Your task to perform on an android device: Google the capital of Uruguay Image 0: 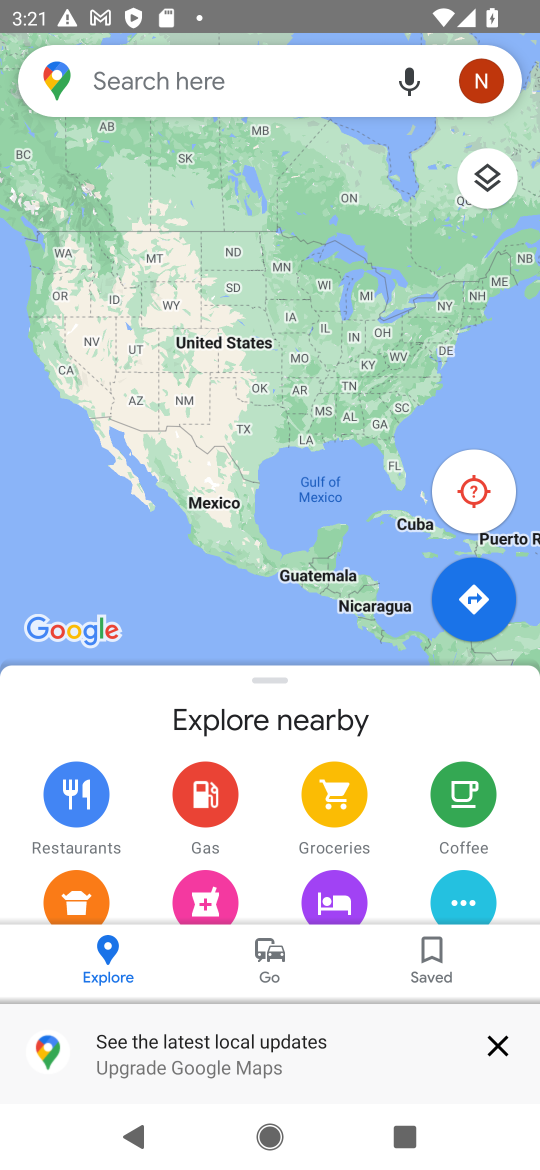
Step 0: press home button
Your task to perform on an android device: Google the capital of Uruguay Image 1: 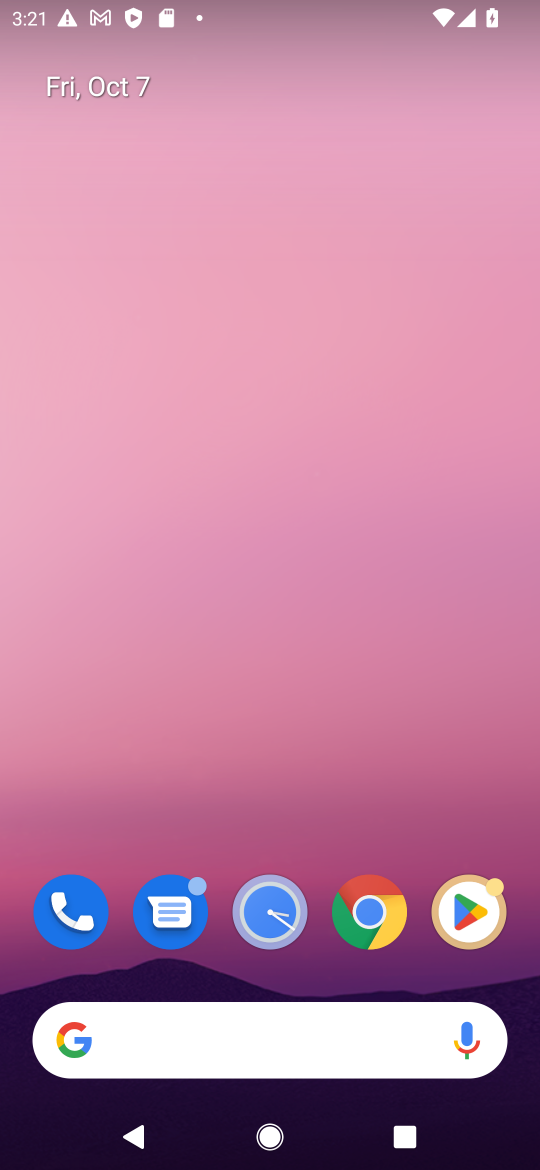
Step 1: drag from (289, 982) to (205, 138)
Your task to perform on an android device: Google the capital of Uruguay Image 2: 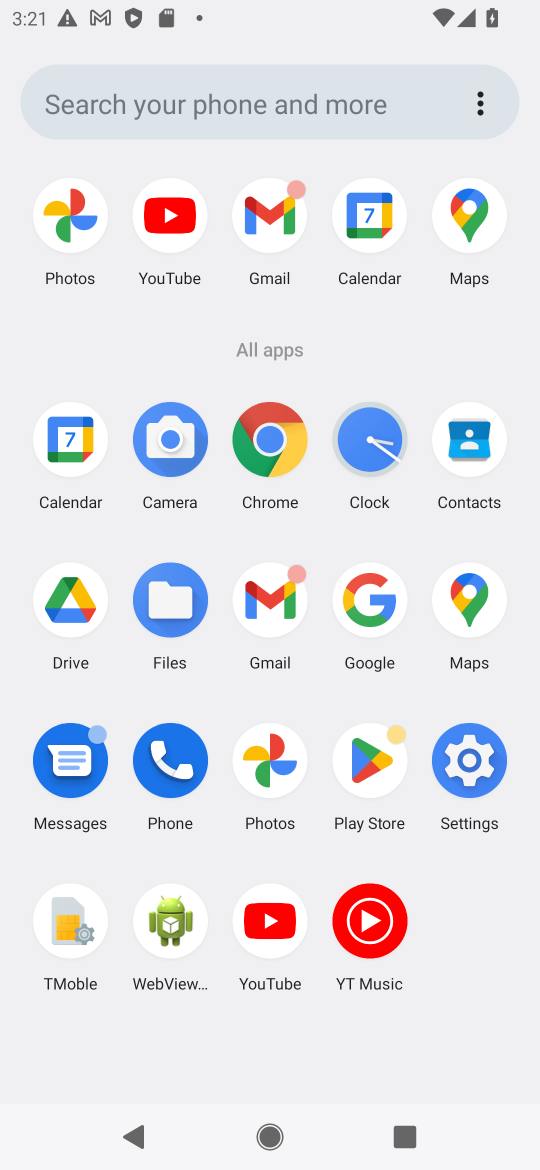
Step 2: click (369, 600)
Your task to perform on an android device: Google the capital of Uruguay Image 3: 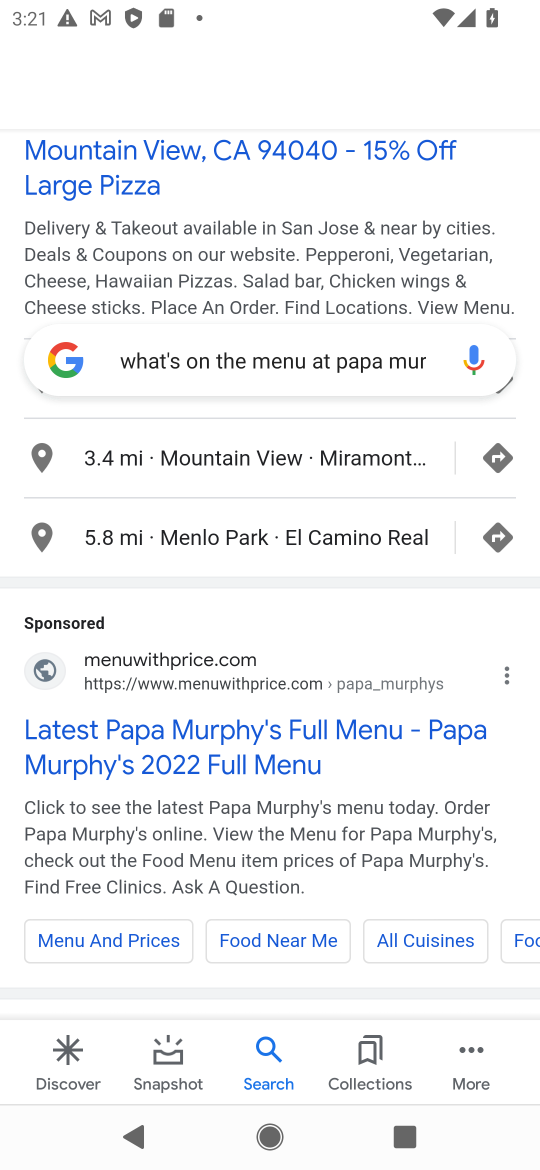
Step 3: drag from (269, 173) to (252, 921)
Your task to perform on an android device: Google the capital of Uruguay Image 4: 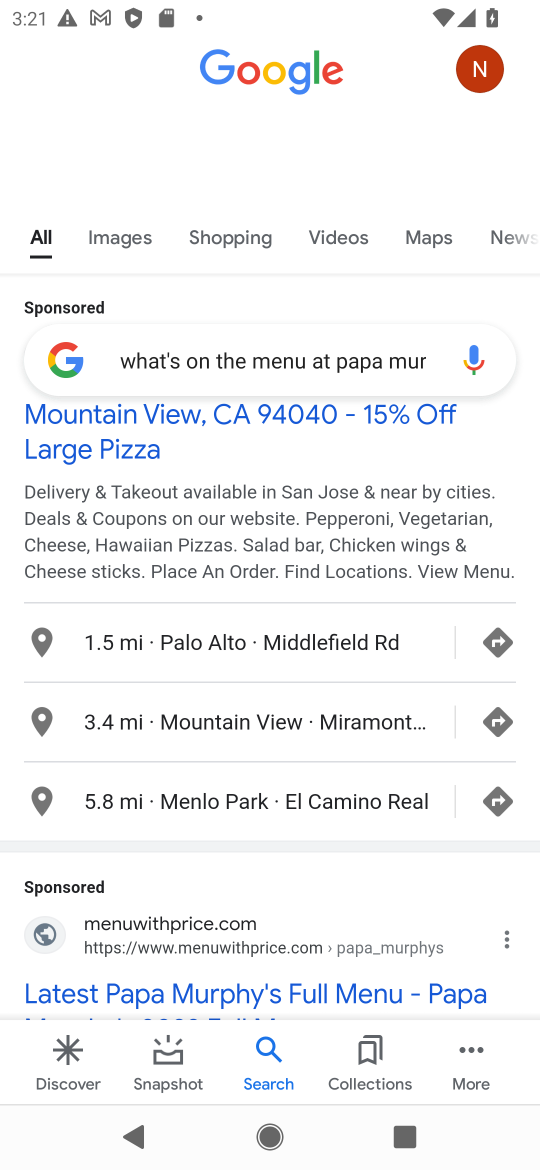
Step 4: click (245, 349)
Your task to perform on an android device: Google the capital of Uruguay Image 5: 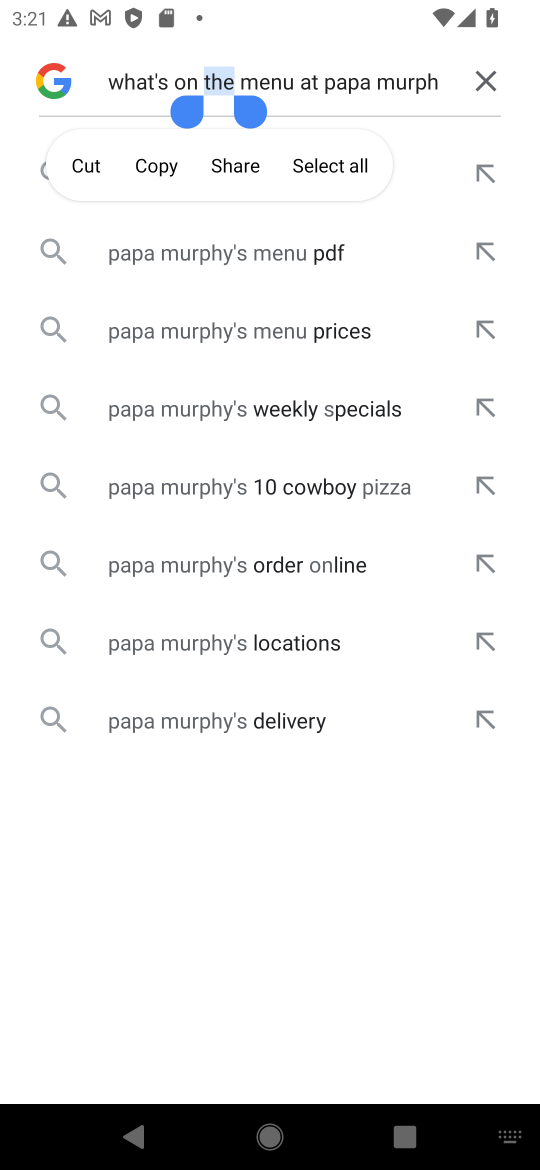
Step 5: click (475, 85)
Your task to perform on an android device: Google the capital of Uruguay Image 6: 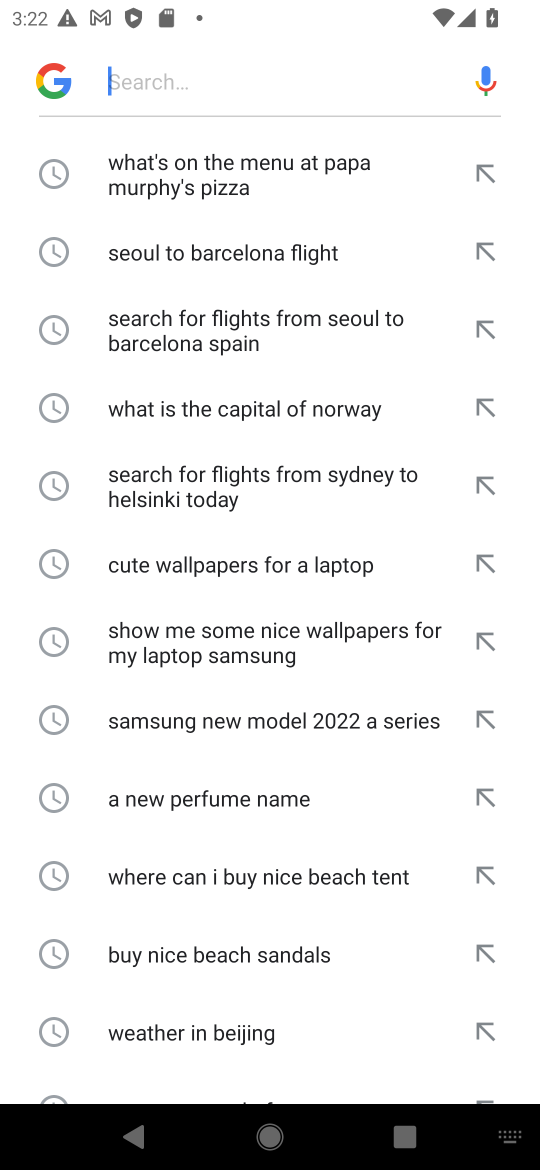
Step 6: click (251, 77)
Your task to perform on an android device: Google the capital of Uruguay Image 7: 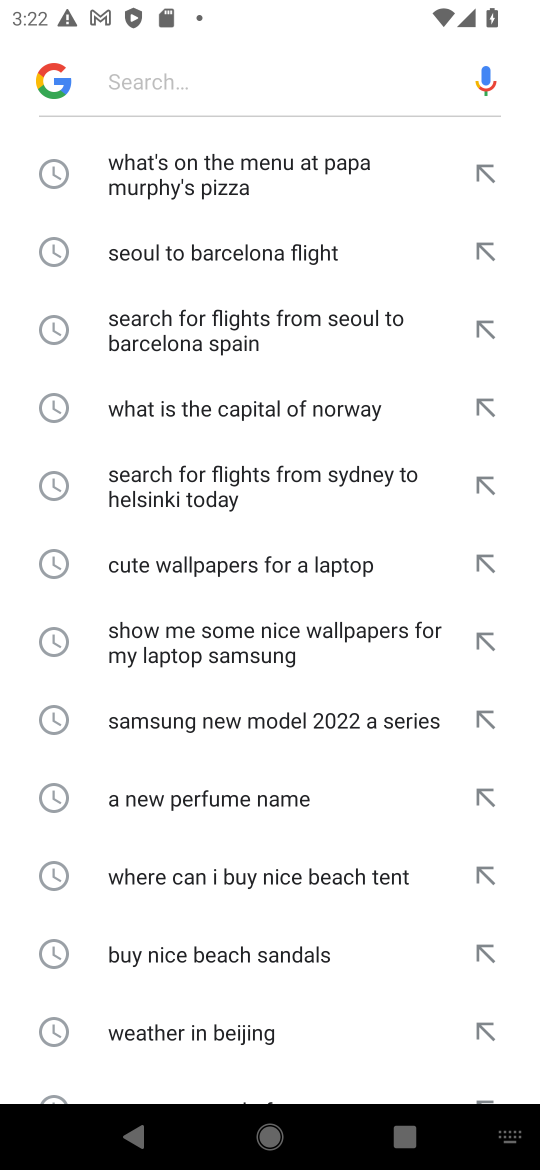
Step 7: type "Google the capital of Uruguay "
Your task to perform on an android device: Google the capital of Uruguay Image 8: 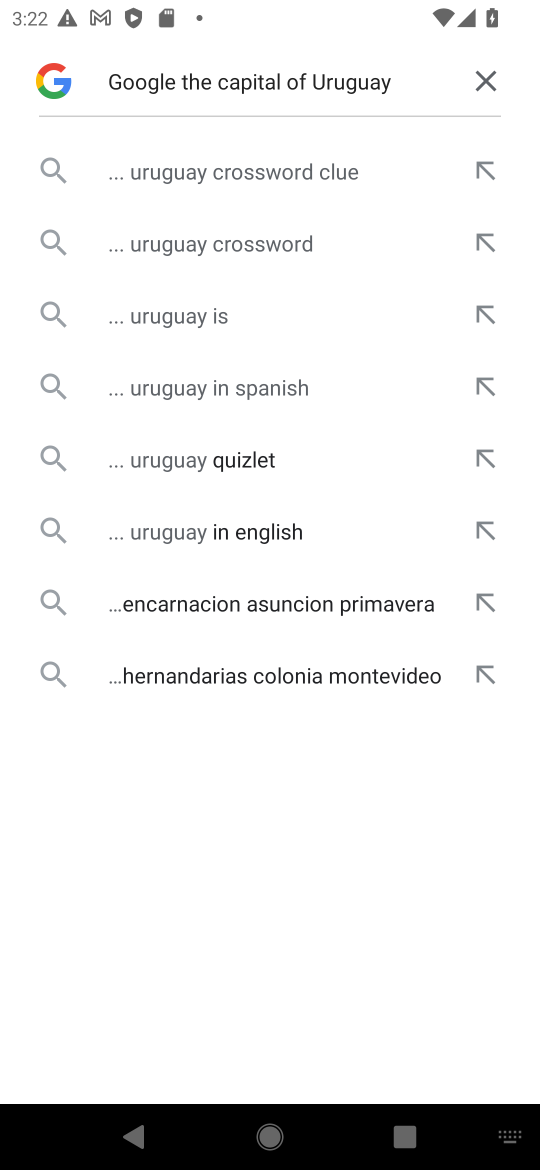
Step 8: click (206, 396)
Your task to perform on an android device: Google the capital of Uruguay Image 9: 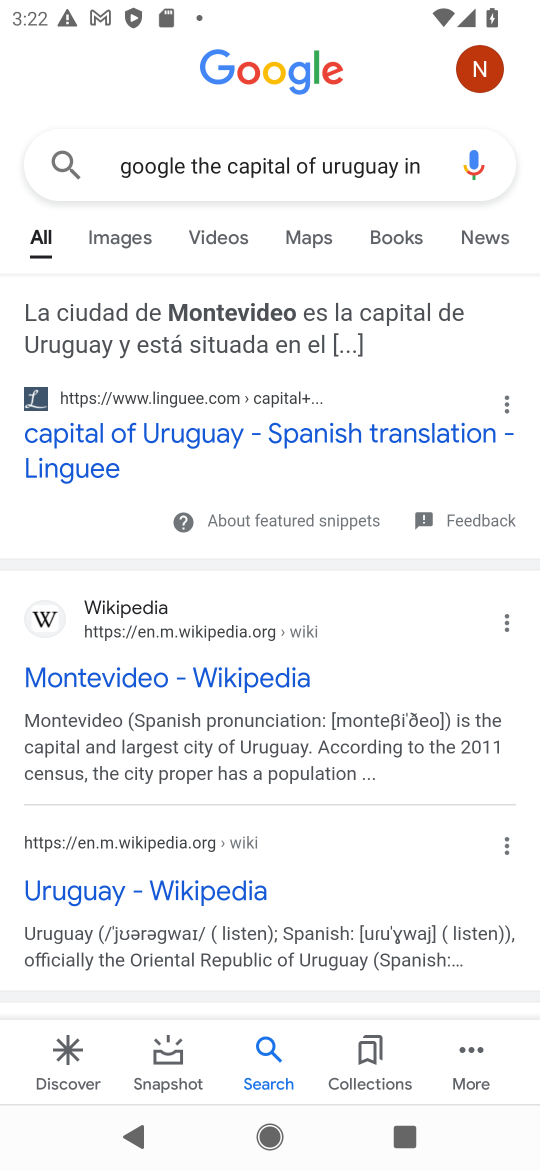
Step 9: click (311, 155)
Your task to perform on an android device: Google the capital of Uruguay Image 10: 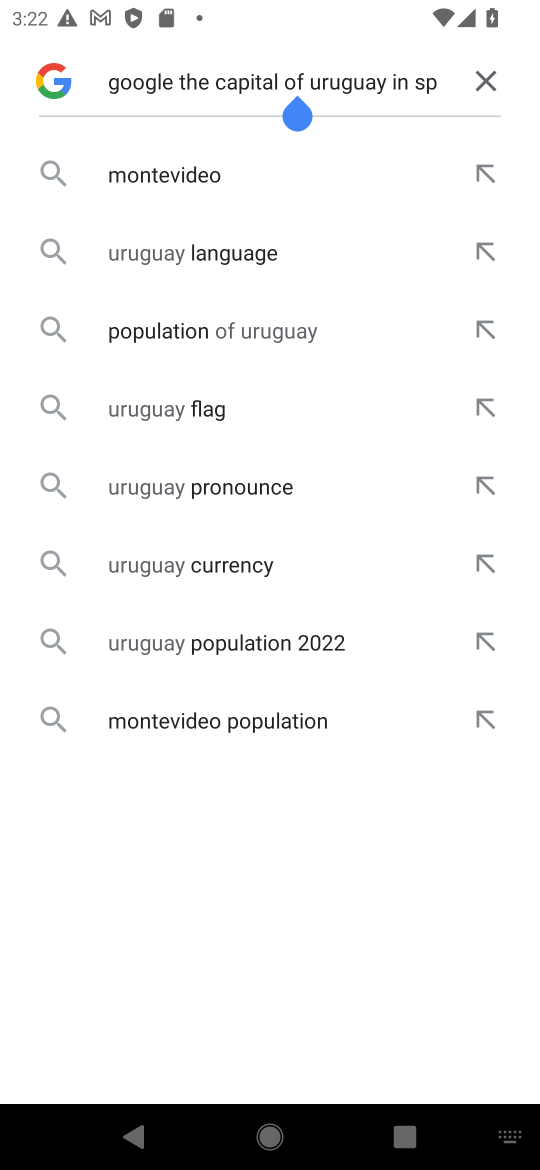
Step 10: click (465, 78)
Your task to perform on an android device: Google the capital of Uruguay Image 11: 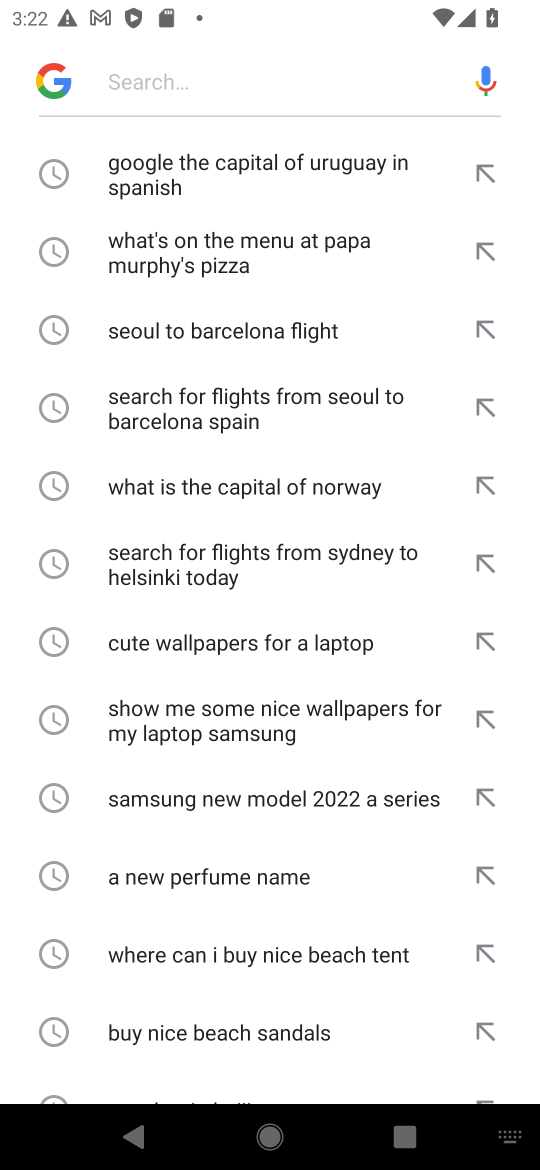
Step 11: click (217, 72)
Your task to perform on an android device: Google the capital of Uruguay Image 12: 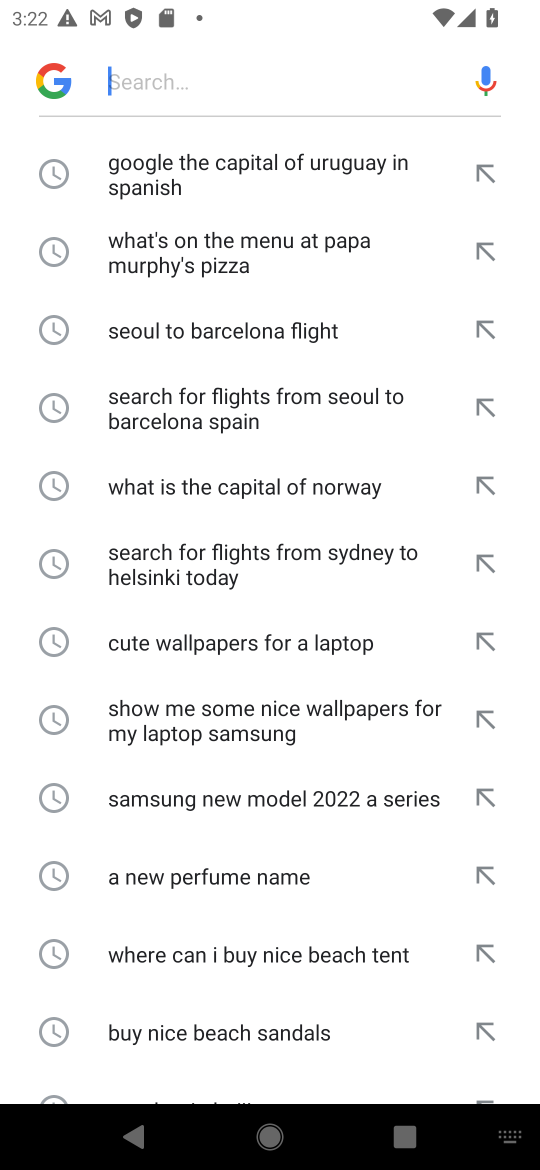
Step 12: type " the capital of Uruguay "
Your task to perform on an android device: Google the capital of Uruguay Image 13: 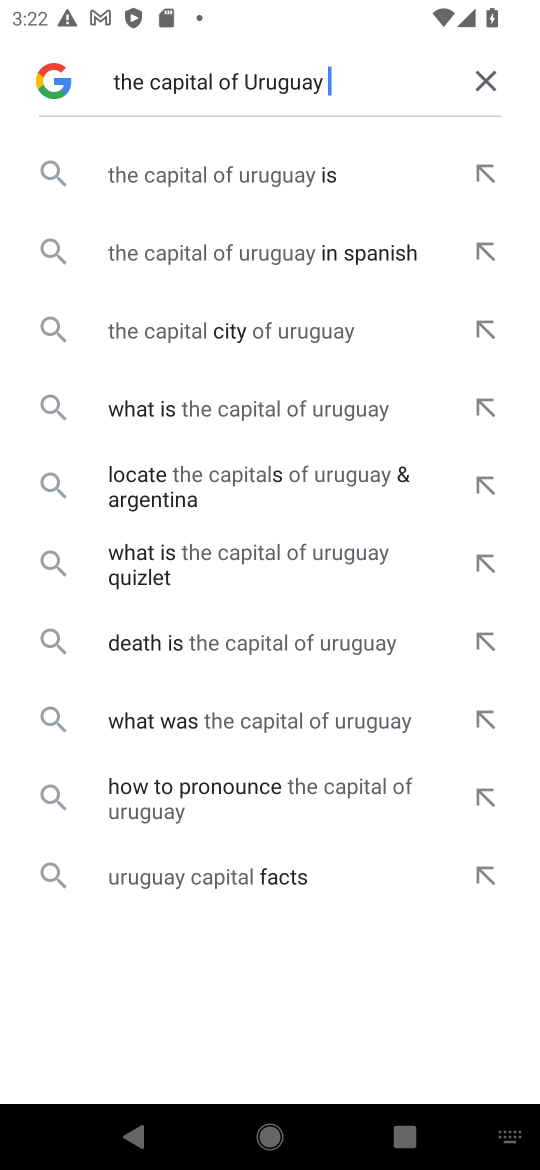
Step 13: click (252, 176)
Your task to perform on an android device: Google the capital of Uruguay Image 14: 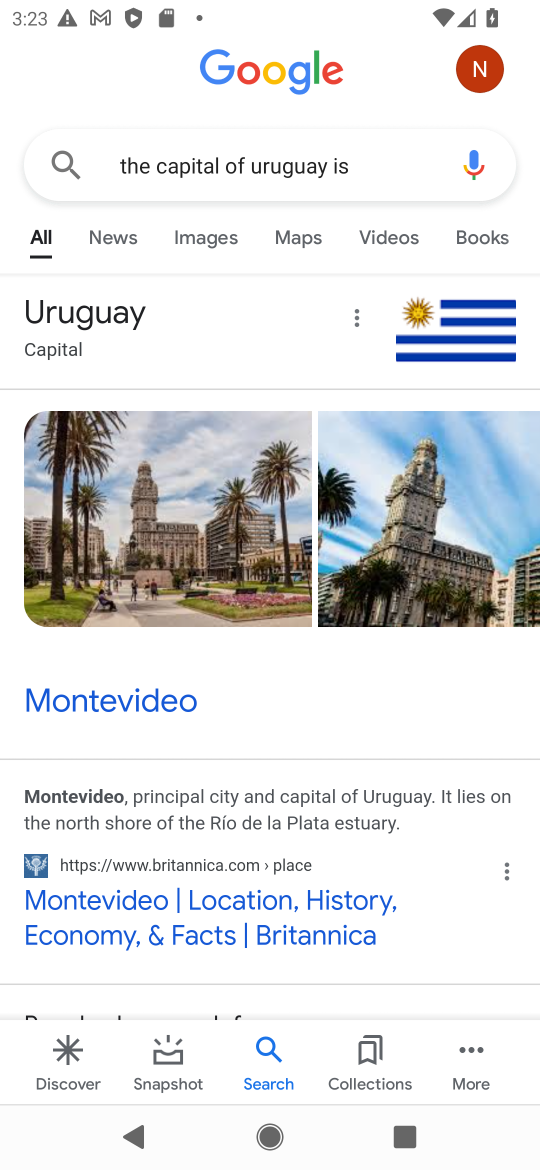
Step 14: task complete